Your task to perform on an android device: turn off notifications settings in the gmail app Image 0: 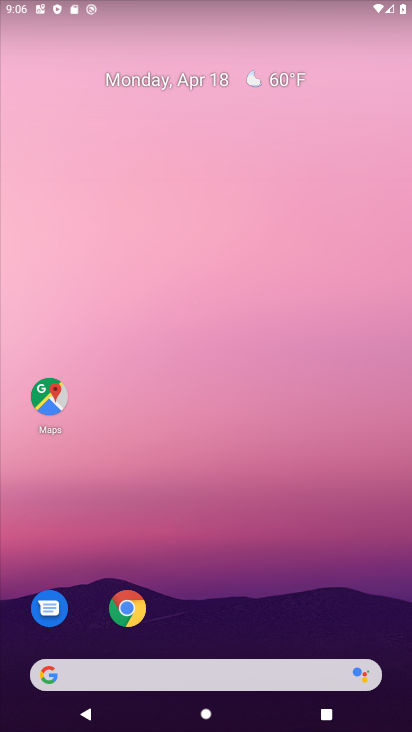
Step 0: drag from (209, 621) to (313, 116)
Your task to perform on an android device: turn off notifications settings in the gmail app Image 1: 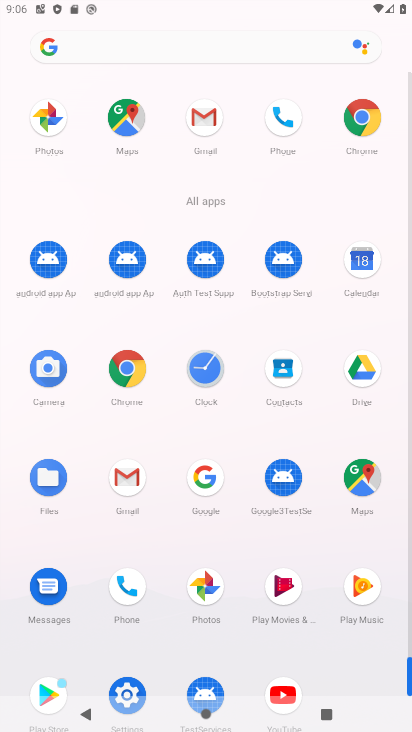
Step 1: click (119, 475)
Your task to perform on an android device: turn off notifications settings in the gmail app Image 2: 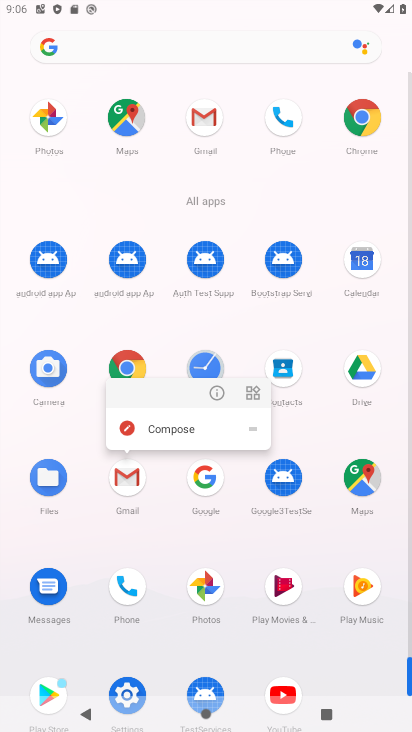
Step 2: click (218, 386)
Your task to perform on an android device: turn off notifications settings in the gmail app Image 3: 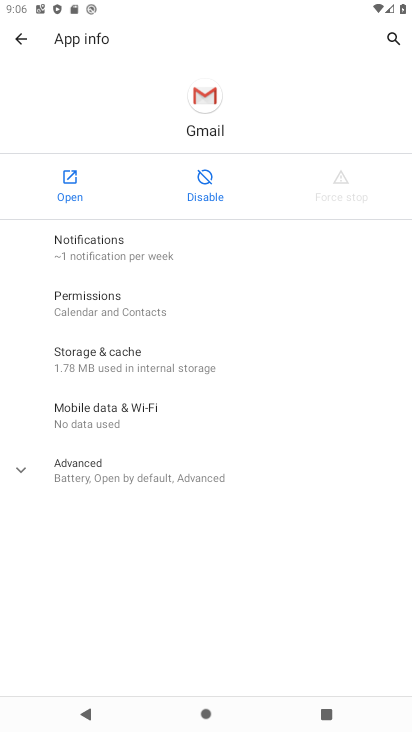
Step 3: click (69, 187)
Your task to perform on an android device: turn off notifications settings in the gmail app Image 4: 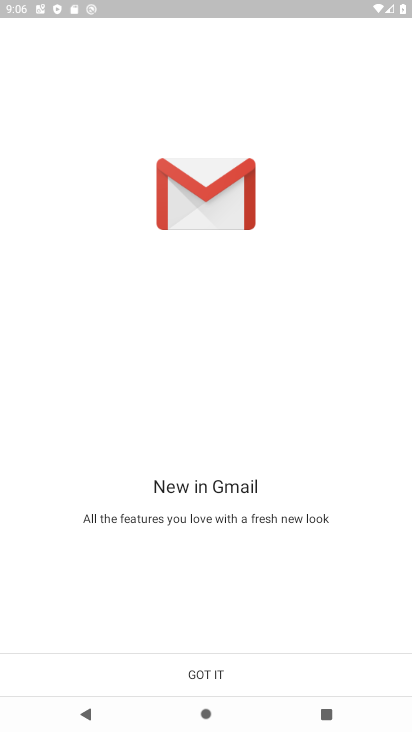
Step 4: click (205, 672)
Your task to perform on an android device: turn off notifications settings in the gmail app Image 5: 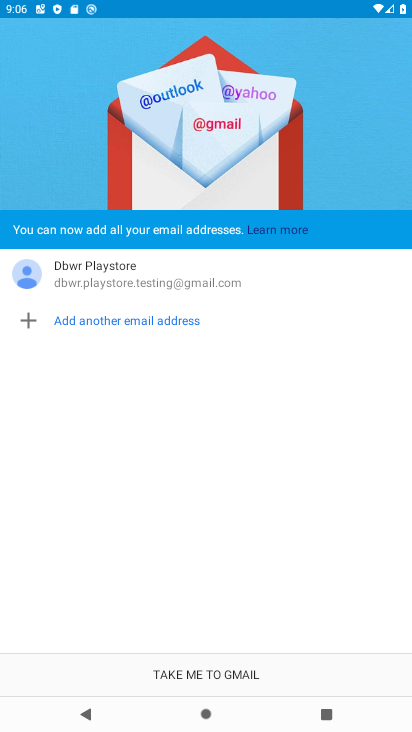
Step 5: click (203, 667)
Your task to perform on an android device: turn off notifications settings in the gmail app Image 6: 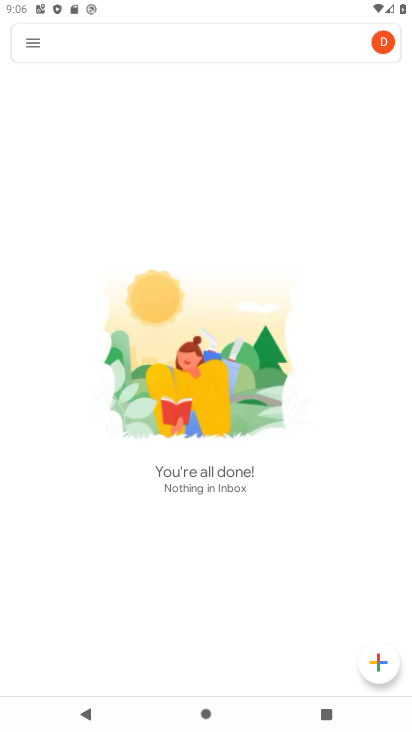
Step 6: click (37, 37)
Your task to perform on an android device: turn off notifications settings in the gmail app Image 7: 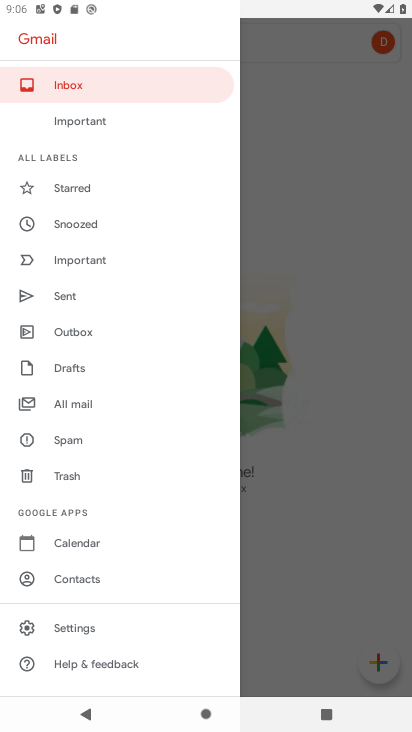
Step 7: click (85, 622)
Your task to perform on an android device: turn off notifications settings in the gmail app Image 8: 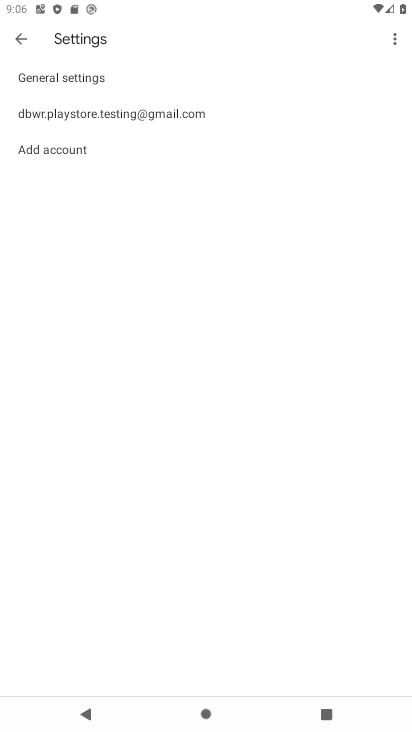
Step 8: click (116, 114)
Your task to perform on an android device: turn off notifications settings in the gmail app Image 9: 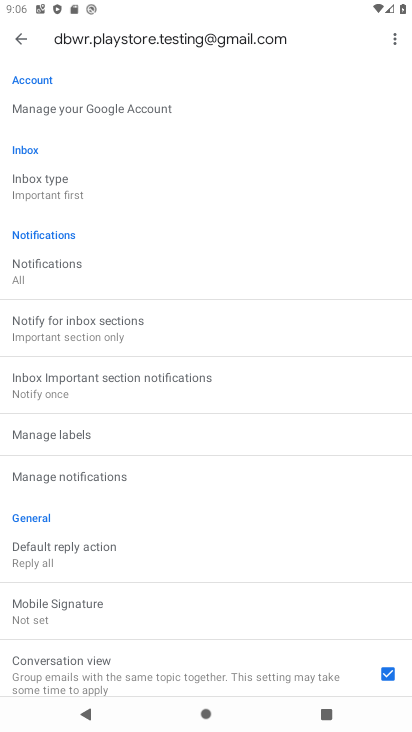
Step 9: click (70, 495)
Your task to perform on an android device: turn off notifications settings in the gmail app Image 10: 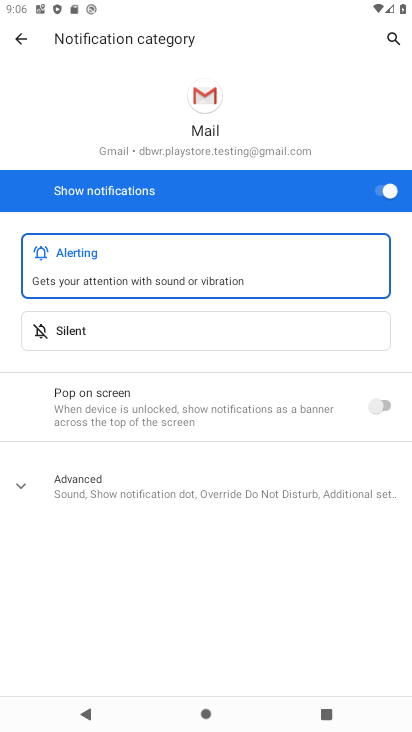
Step 10: click (381, 188)
Your task to perform on an android device: turn off notifications settings in the gmail app Image 11: 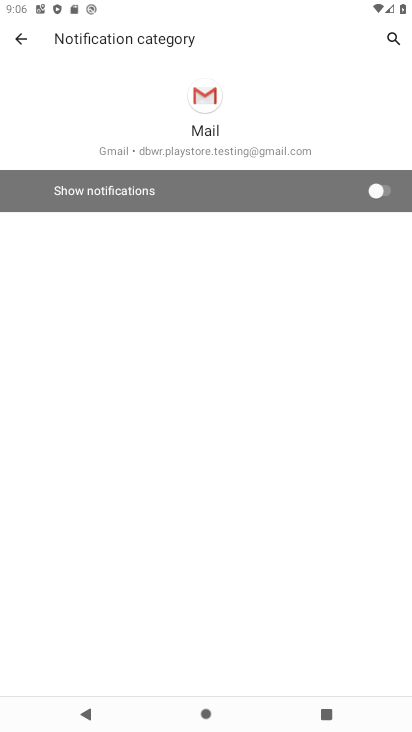
Step 11: task complete